Your task to perform on an android device: check storage Image 0: 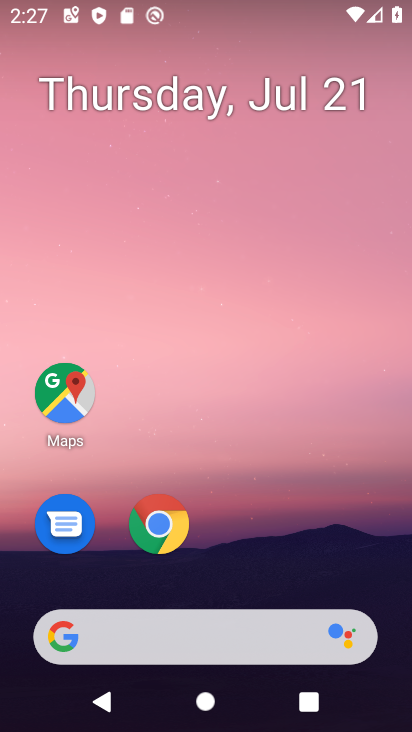
Step 0: drag from (253, 497) to (299, 0)
Your task to perform on an android device: check storage Image 1: 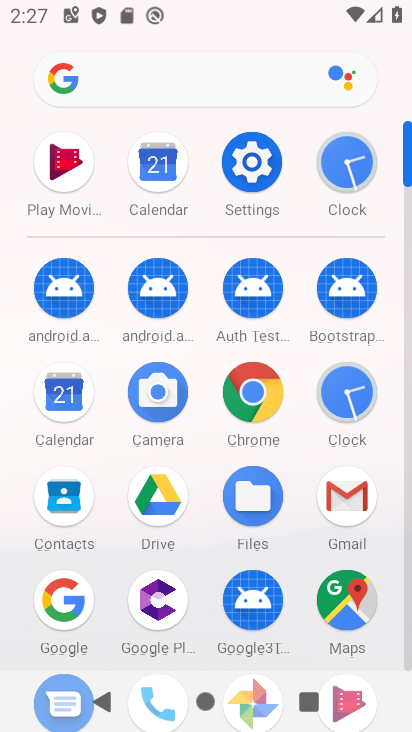
Step 1: click (253, 158)
Your task to perform on an android device: check storage Image 2: 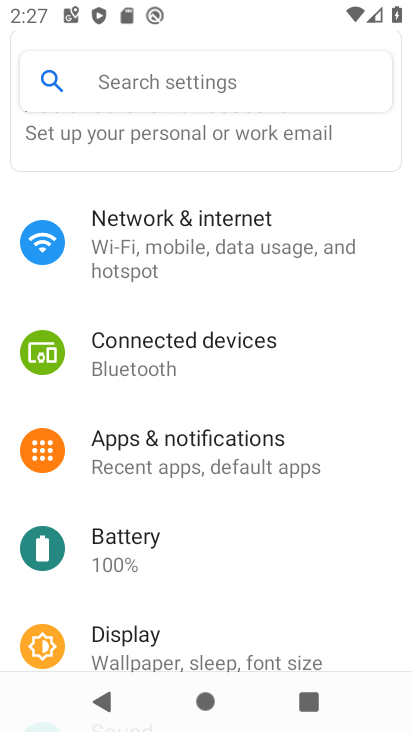
Step 2: drag from (195, 449) to (249, 224)
Your task to perform on an android device: check storage Image 3: 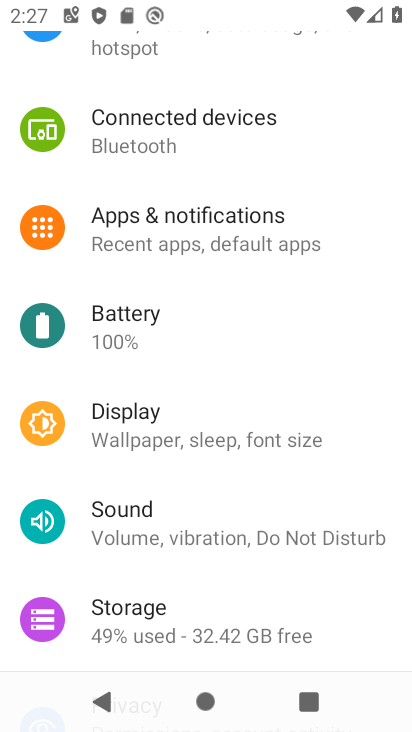
Step 3: click (204, 623)
Your task to perform on an android device: check storage Image 4: 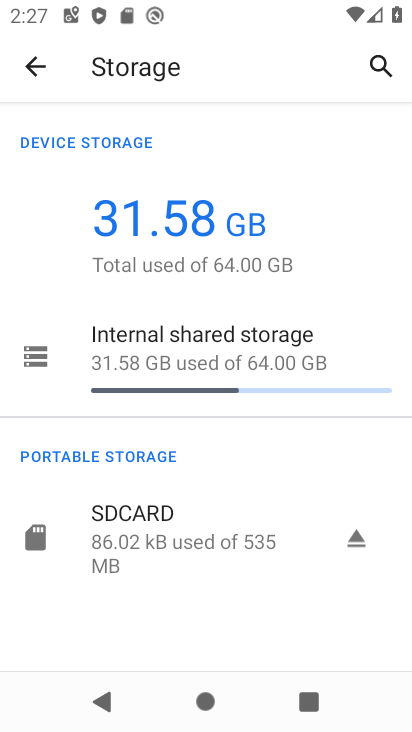
Step 4: task complete